Your task to perform on an android device: delete browsing data in the chrome app Image 0: 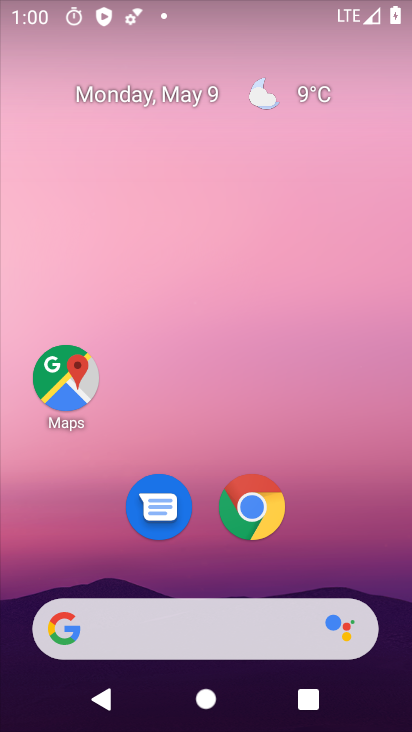
Step 0: click (260, 512)
Your task to perform on an android device: delete browsing data in the chrome app Image 1: 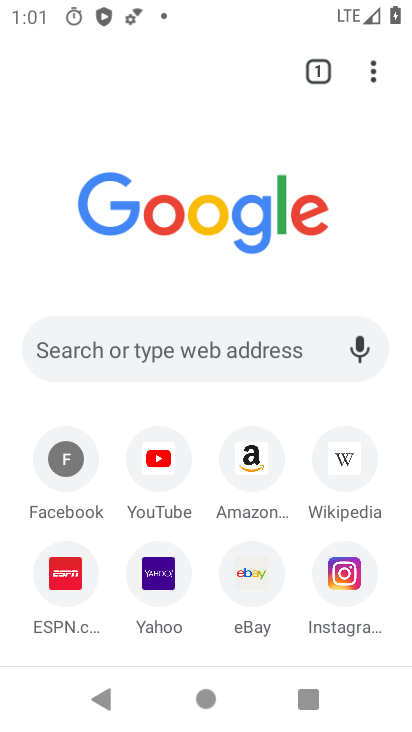
Step 1: click (375, 79)
Your task to perform on an android device: delete browsing data in the chrome app Image 2: 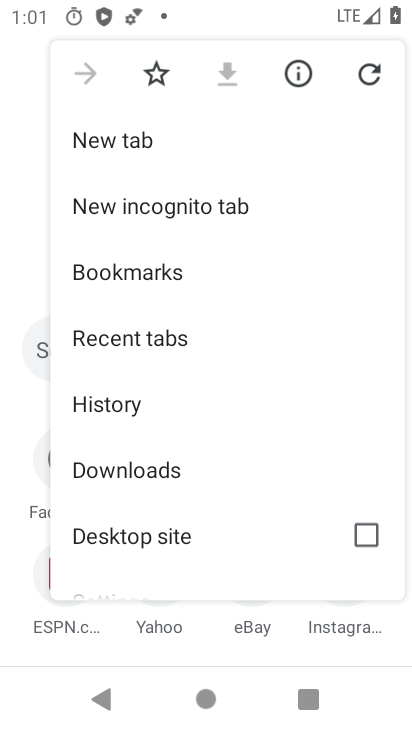
Step 2: drag from (160, 519) to (152, 182)
Your task to perform on an android device: delete browsing data in the chrome app Image 3: 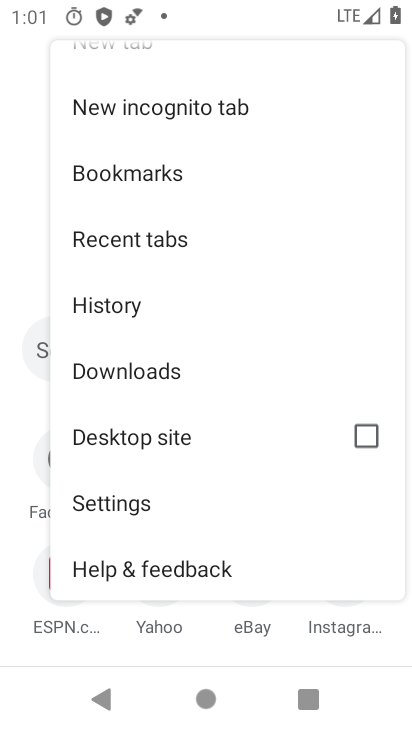
Step 3: click (138, 502)
Your task to perform on an android device: delete browsing data in the chrome app Image 4: 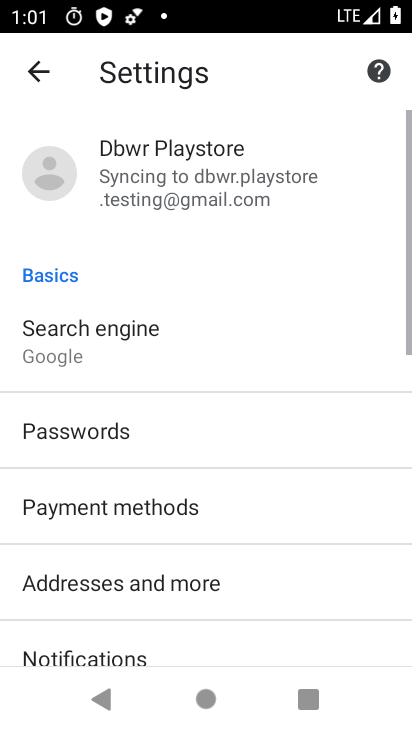
Step 4: drag from (125, 653) to (104, 372)
Your task to perform on an android device: delete browsing data in the chrome app Image 5: 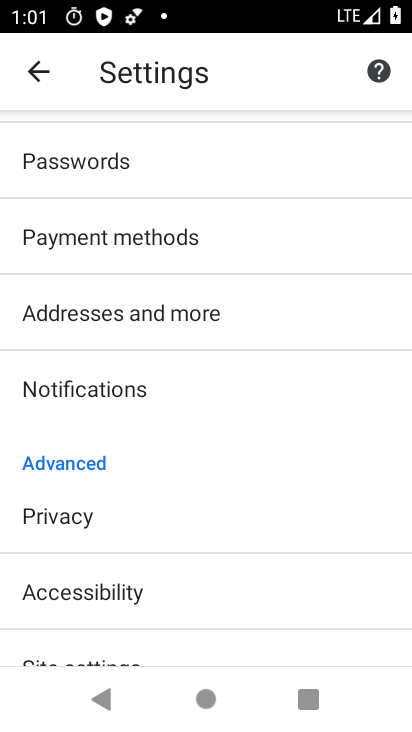
Step 5: drag from (111, 606) to (111, 386)
Your task to perform on an android device: delete browsing data in the chrome app Image 6: 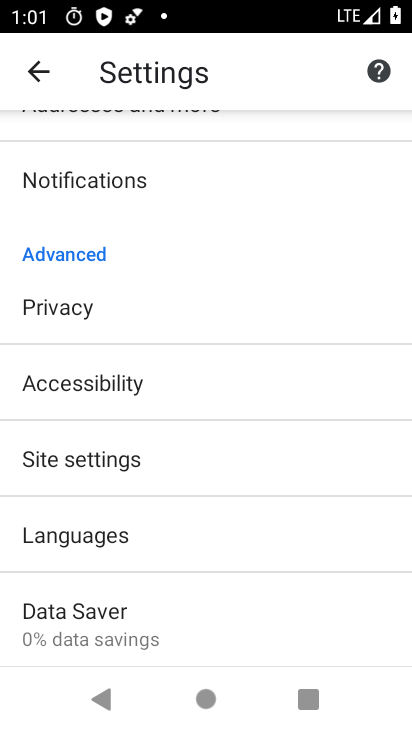
Step 6: drag from (154, 643) to (141, 450)
Your task to perform on an android device: delete browsing data in the chrome app Image 7: 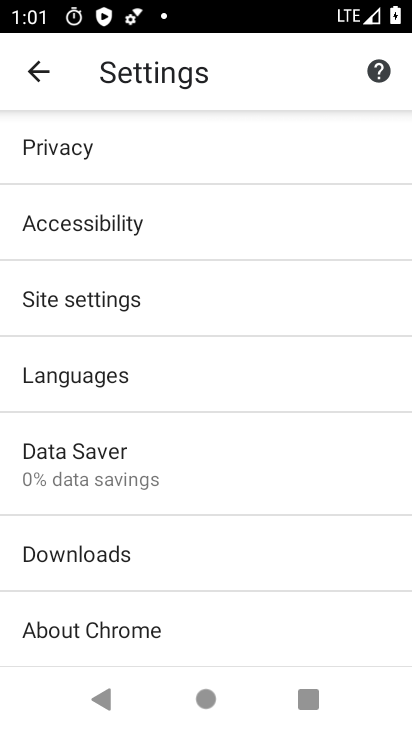
Step 7: click (81, 143)
Your task to perform on an android device: delete browsing data in the chrome app Image 8: 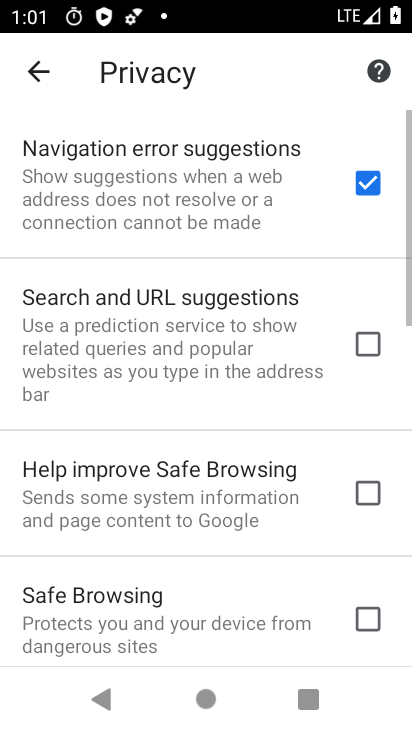
Step 8: drag from (170, 651) to (172, 205)
Your task to perform on an android device: delete browsing data in the chrome app Image 9: 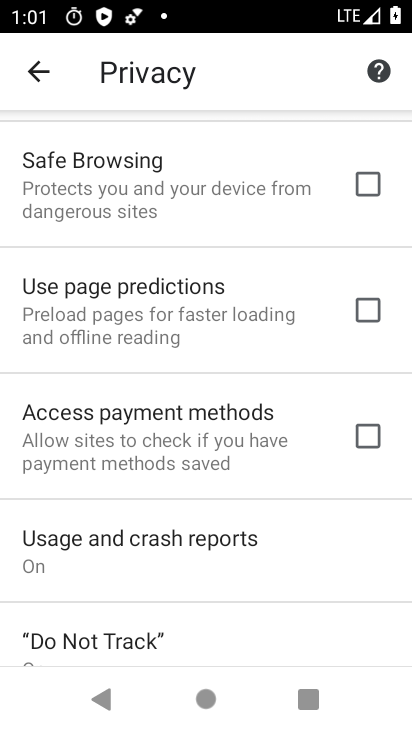
Step 9: drag from (203, 636) to (201, 238)
Your task to perform on an android device: delete browsing data in the chrome app Image 10: 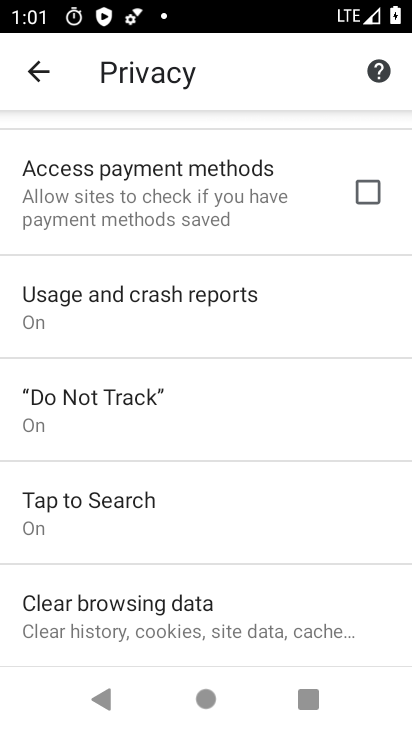
Step 10: click (207, 597)
Your task to perform on an android device: delete browsing data in the chrome app Image 11: 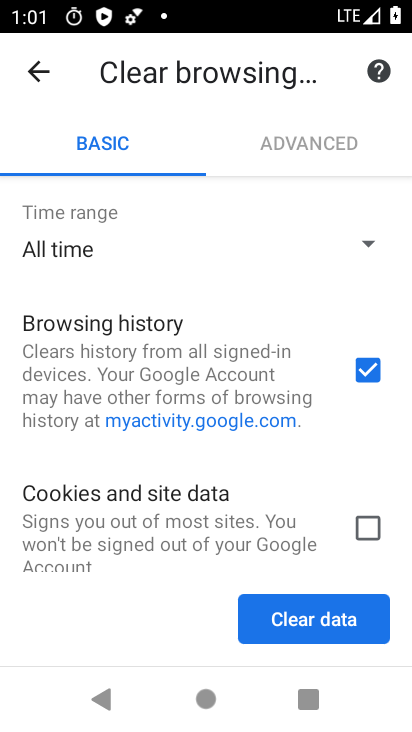
Step 11: drag from (267, 506) to (264, 318)
Your task to perform on an android device: delete browsing data in the chrome app Image 12: 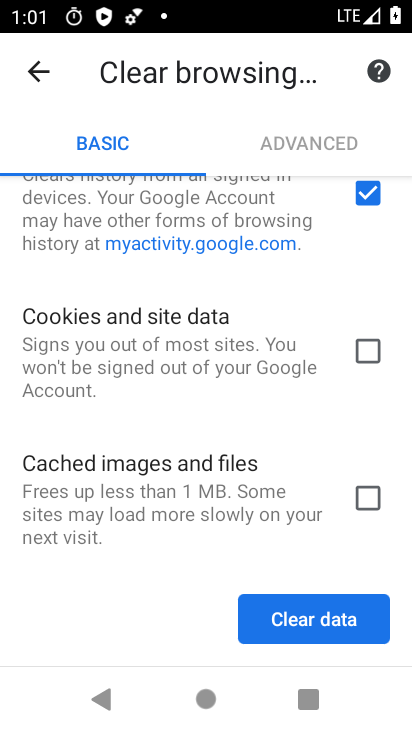
Step 12: click (327, 613)
Your task to perform on an android device: delete browsing data in the chrome app Image 13: 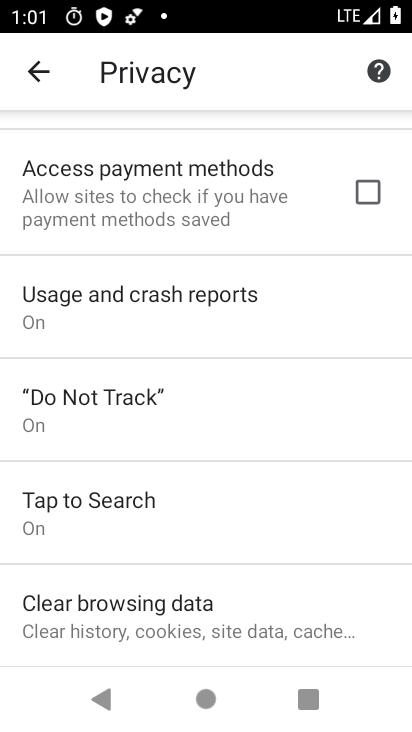
Step 13: task complete